Your task to perform on an android device: Open notification settings Image 0: 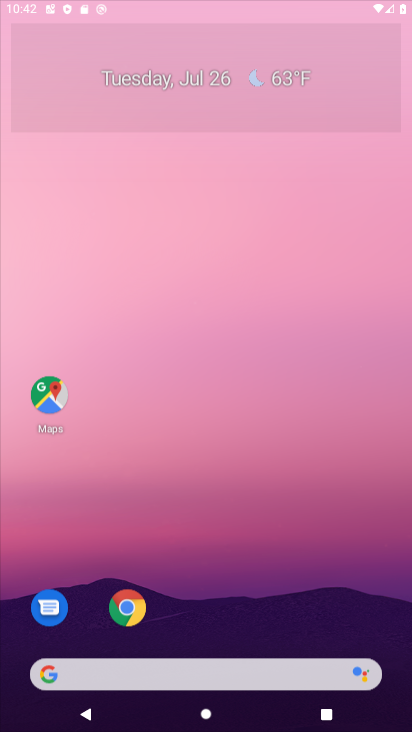
Step 0: press home button
Your task to perform on an android device: Open notification settings Image 1: 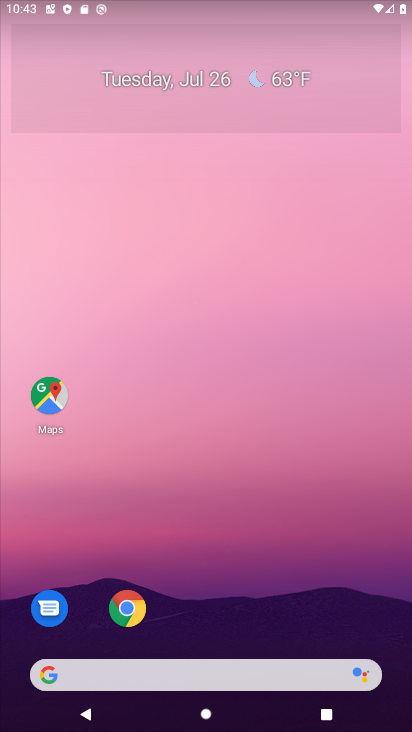
Step 1: drag from (241, 641) to (277, 0)
Your task to perform on an android device: Open notification settings Image 2: 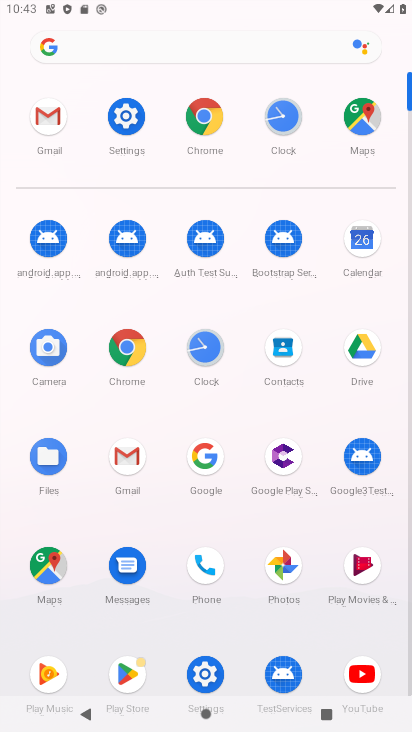
Step 2: click (122, 113)
Your task to perform on an android device: Open notification settings Image 3: 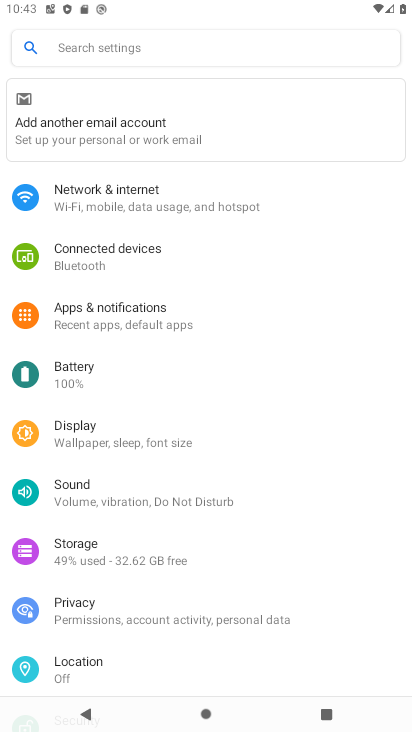
Step 3: click (125, 308)
Your task to perform on an android device: Open notification settings Image 4: 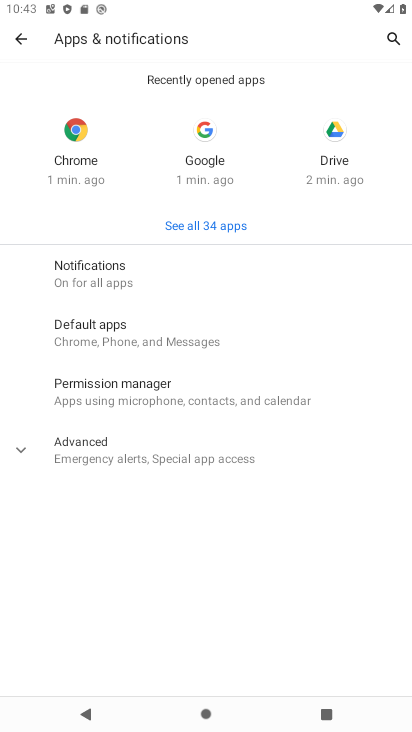
Step 4: click (93, 277)
Your task to perform on an android device: Open notification settings Image 5: 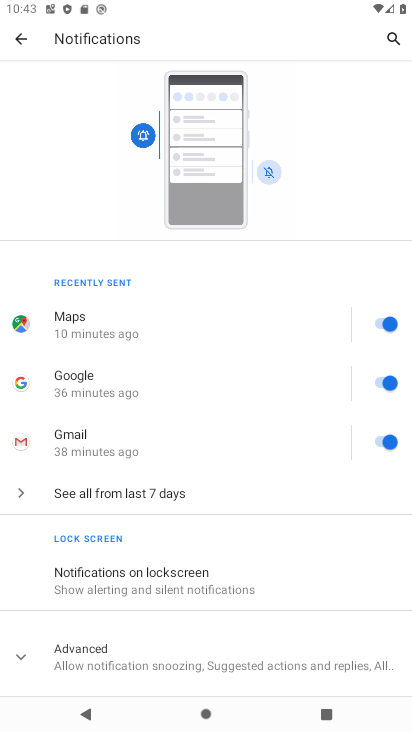
Step 5: task complete